Your task to perform on an android device: Open sound settings Image 0: 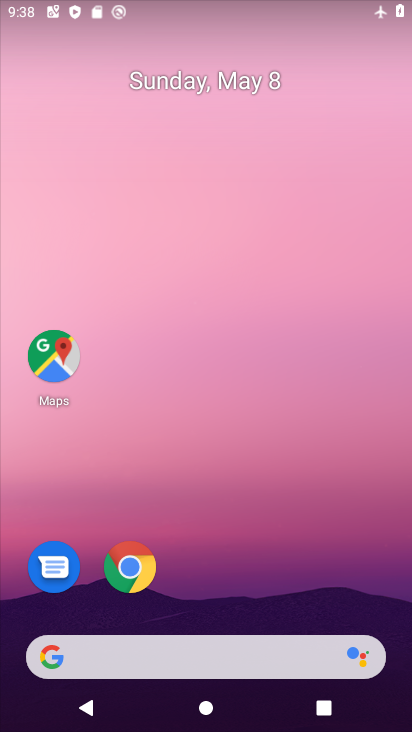
Step 0: drag from (171, 642) to (202, 340)
Your task to perform on an android device: Open sound settings Image 1: 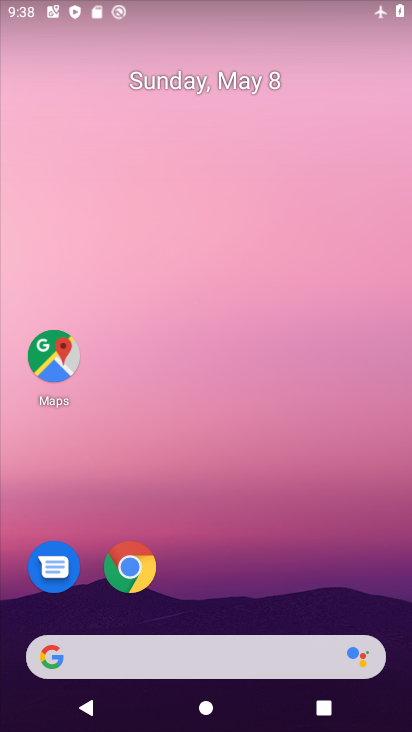
Step 1: drag from (223, 634) to (175, 195)
Your task to perform on an android device: Open sound settings Image 2: 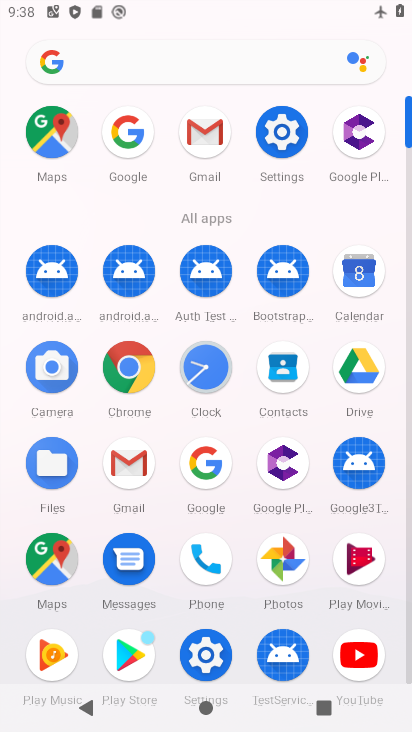
Step 2: click (279, 128)
Your task to perform on an android device: Open sound settings Image 3: 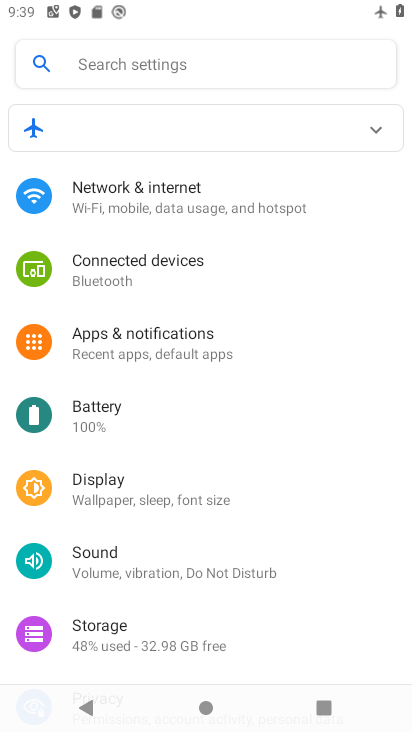
Step 3: click (127, 565)
Your task to perform on an android device: Open sound settings Image 4: 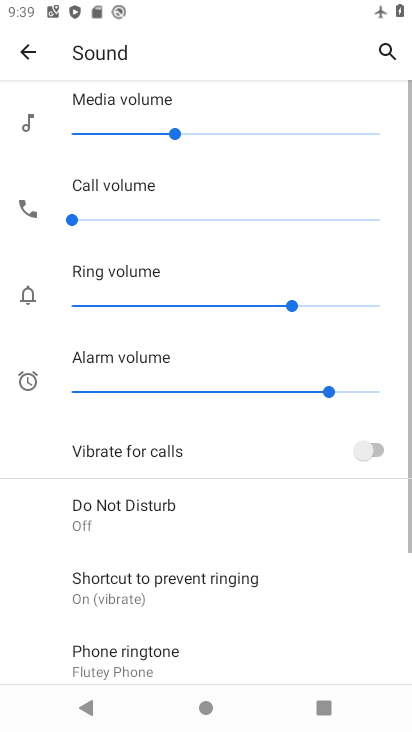
Step 4: task complete